Your task to perform on an android device: toggle show notifications on the lock screen Image 0: 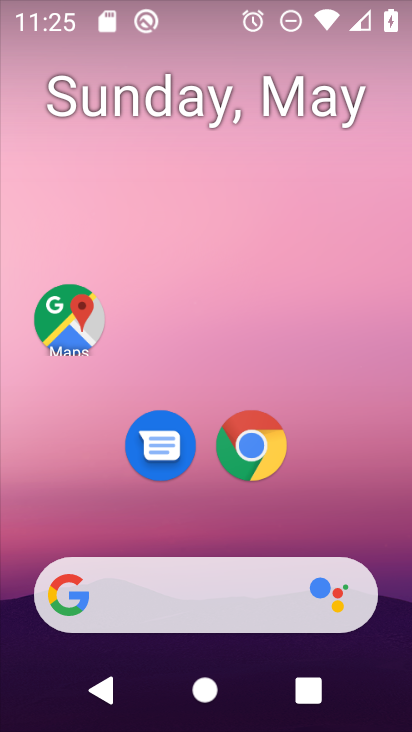
Step 0: drag from (239, 595) to (225, 279)
Your task to perform on an android device: toggle show notifications on the lock screen Image 1: 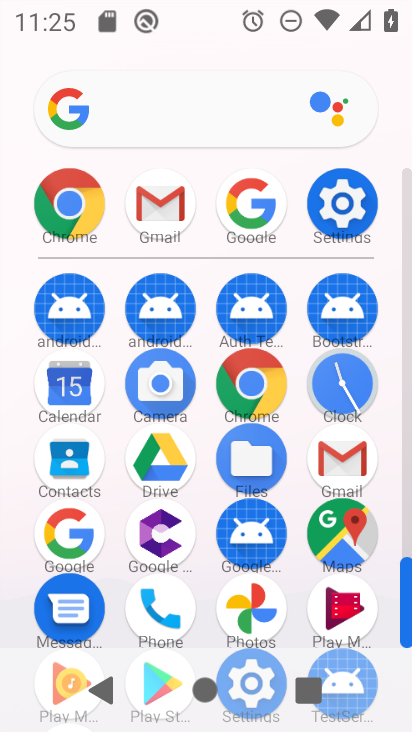
Step 1: click (362, 221)
Your task to perform on an android device: toggle show notifications on the lock screen Image 2: 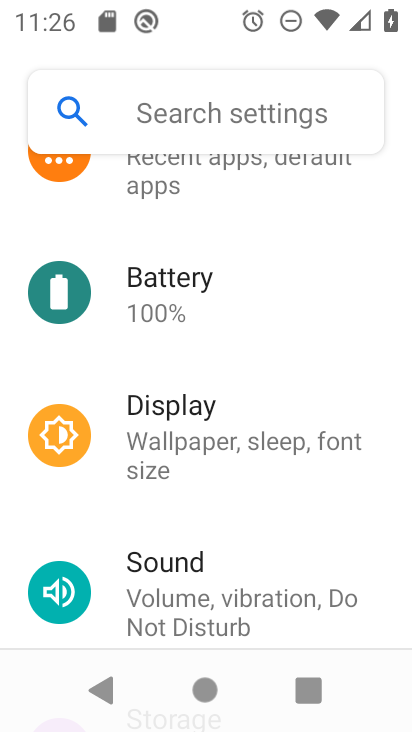
Step 2: drag from (200, 298) to (191, 629)
Your task to perform on an android device: toggle show notifications on the lock screen Image 3: 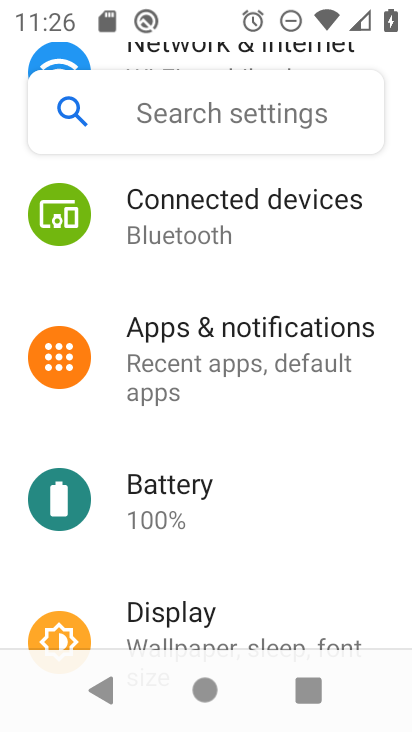
Step 3: click (199, 363)
Your task to perform on an android device: toggle show notifications on the lock screen Image 4: 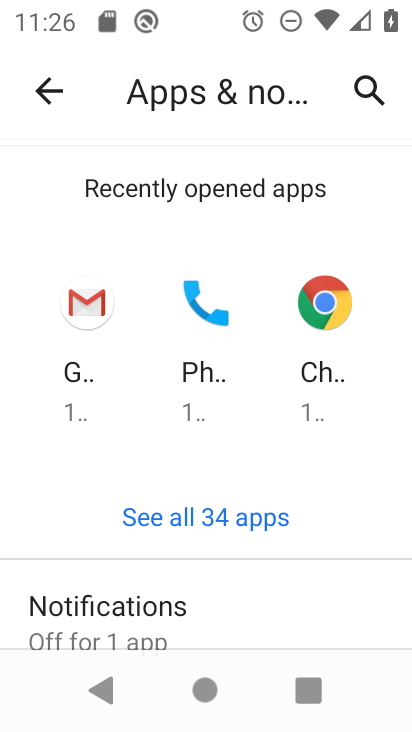
Step 4: click (136, 595)
Your task to perform on an android device: toggle show notifications on the lock screen Image 5: 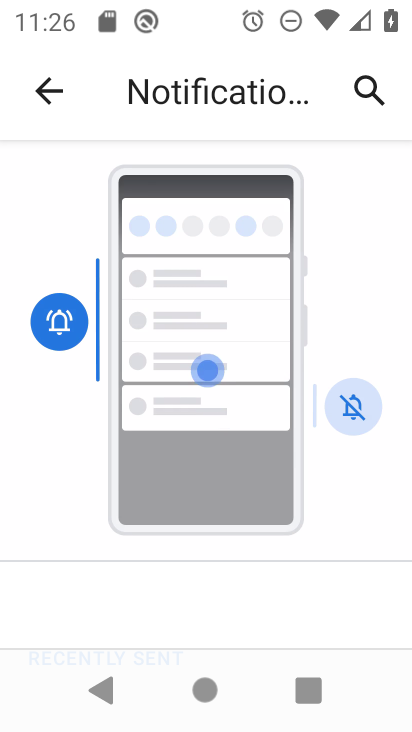
Step 5: drag from (135, 590) to (127, 258)
Your task to perform on an android device: toggle show notifications on the lock screen Image 6: 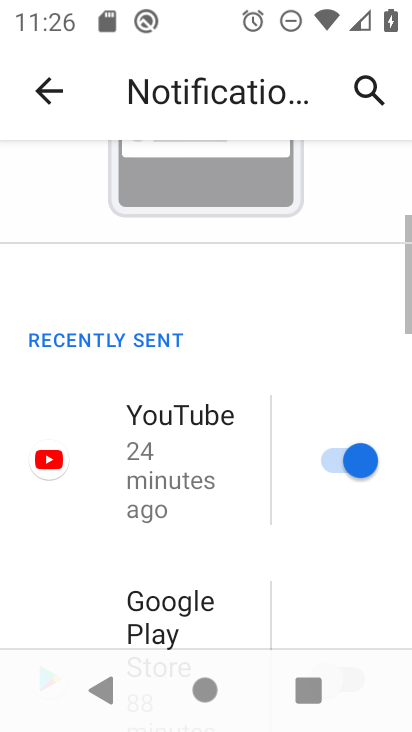
Step 6: drag from (171, 561) to (235, 209)
Your task to perform on an android device: toggle show notifications on the lock screen Image 7: 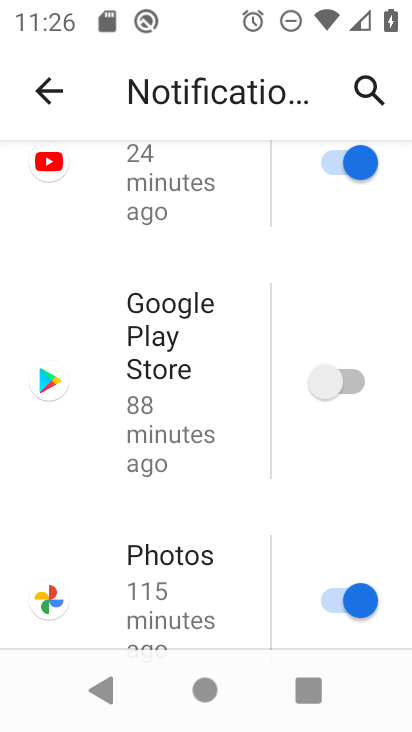
Step 7: drag from (202, 522) to (272, 156)
Your task to perform on an android device: toggle show notifications on the lock screen Image 8: 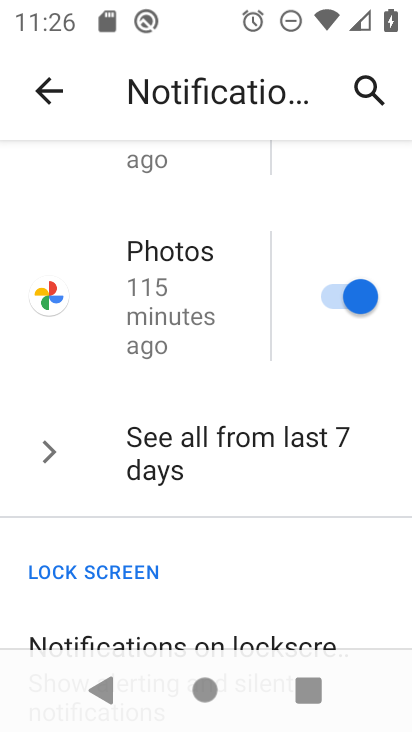
Step 8: drag from (265, 313) to (282, 255)
Your task to perform on an android device: toggle show notifications on the lock screen Image 9: 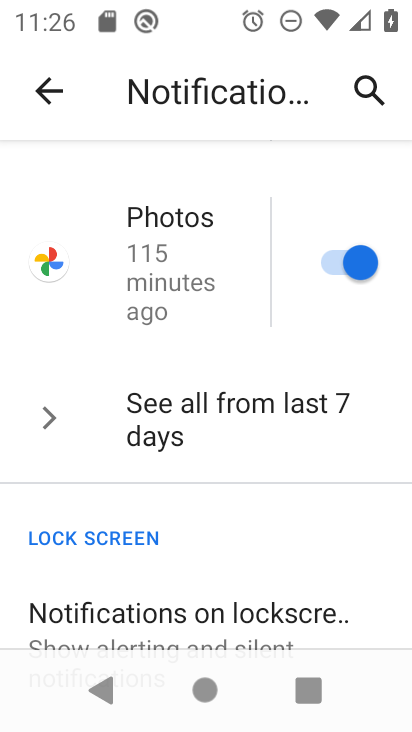
Step 9: drag from (195, 541) to (225, 225)
Your task to perform on an android device: toggle show notifications on the lock screen Image 10: 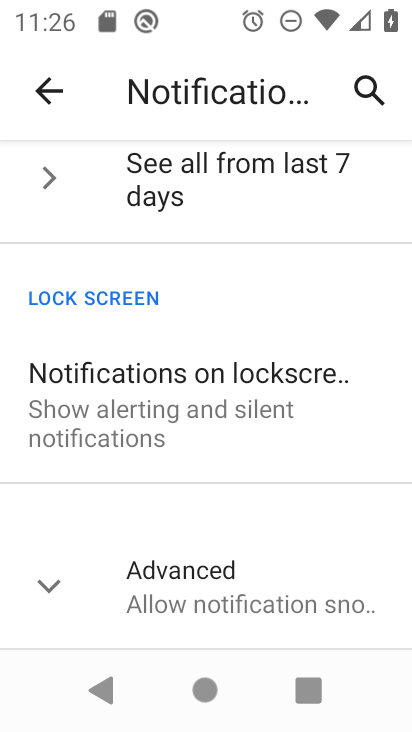
Step 10: click (181, 414)
Your task to perform on an android device: toggle show notifications on the lock screen Image 11: 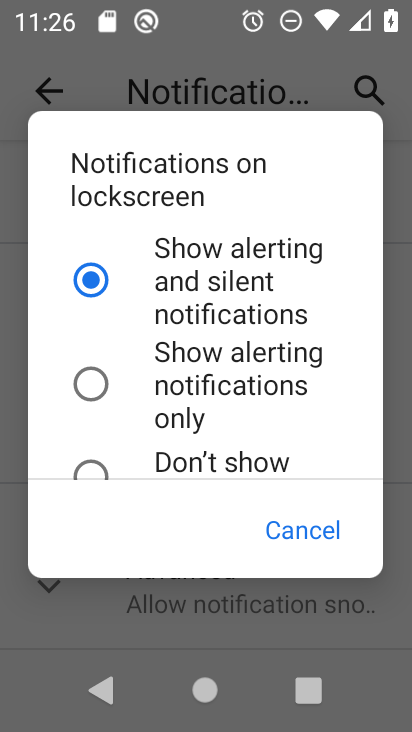
Step 11: click (179, 462)
Your task to perform on an android device: toggle show notifications on the lock screen Image 12: 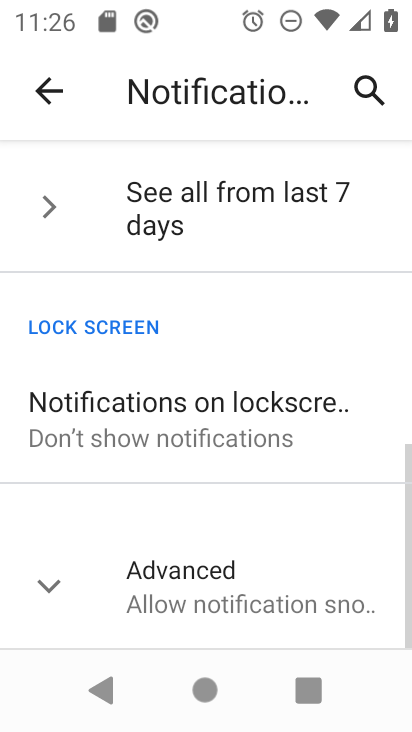
Step 12: task complete